Your task to perform on an android device: uninstall "Life360: Find Family & Friends" Image 0: 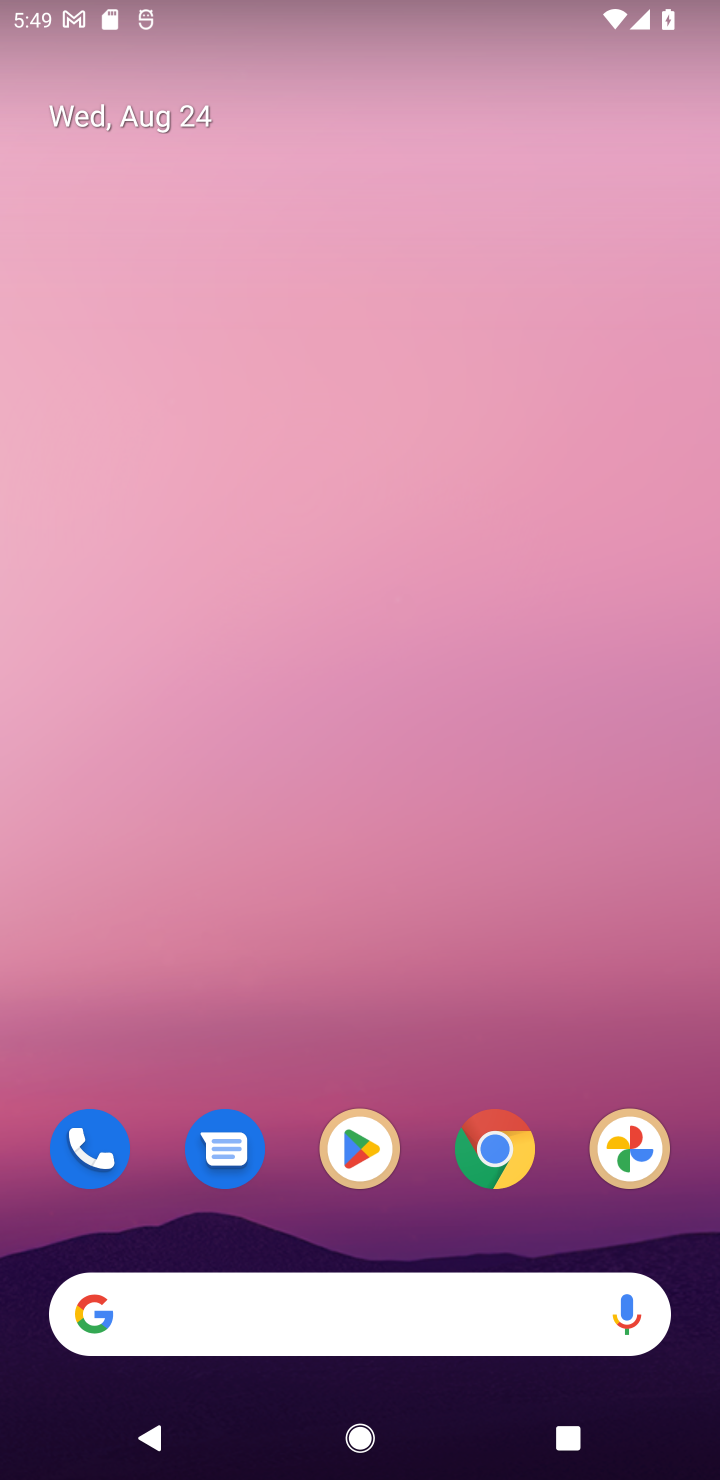
Step 0: click (374, 1148)
Your task to perform on an android device: uninstall "Life360: Find Family & Friends" Image 1: 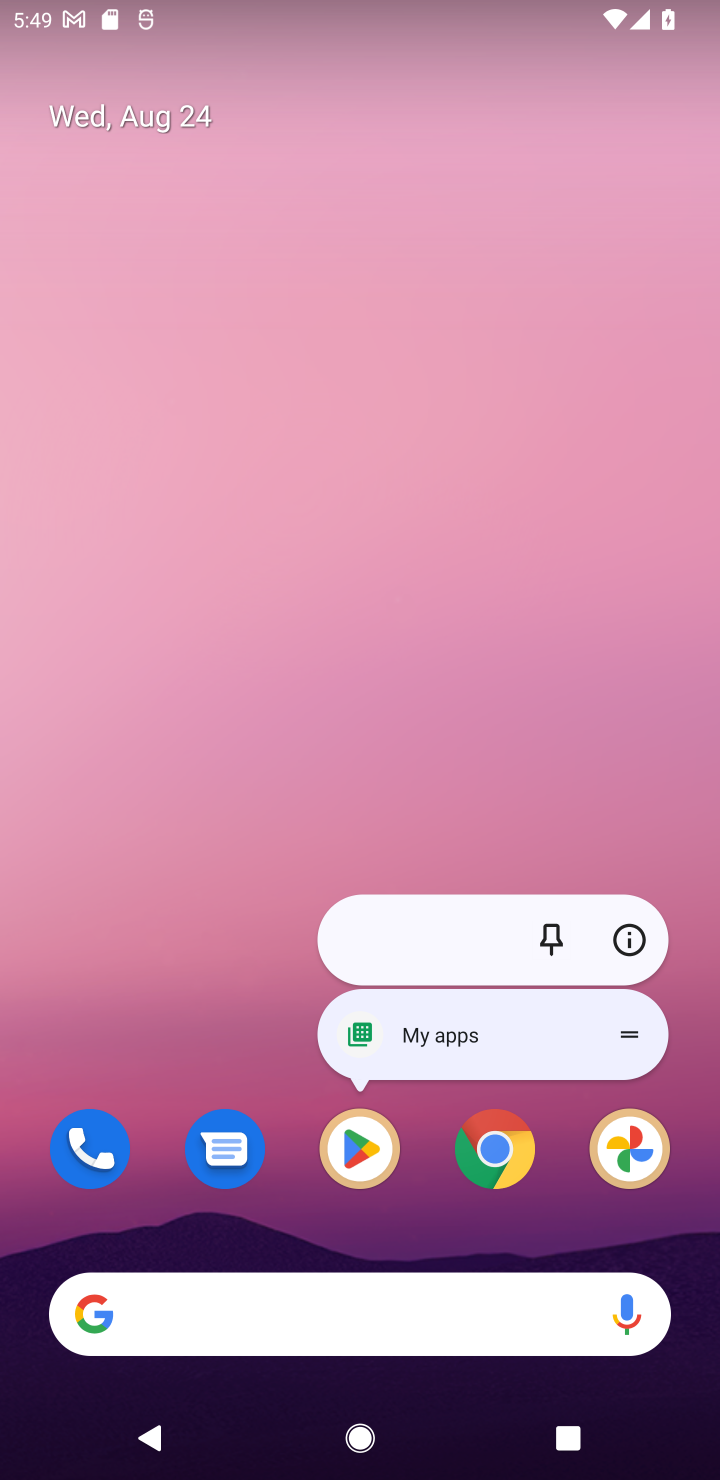
Step 1: click (374, 1156)
Your task to perform on an android device: uninstall "Life360: Find Family & Friends" Image 2: 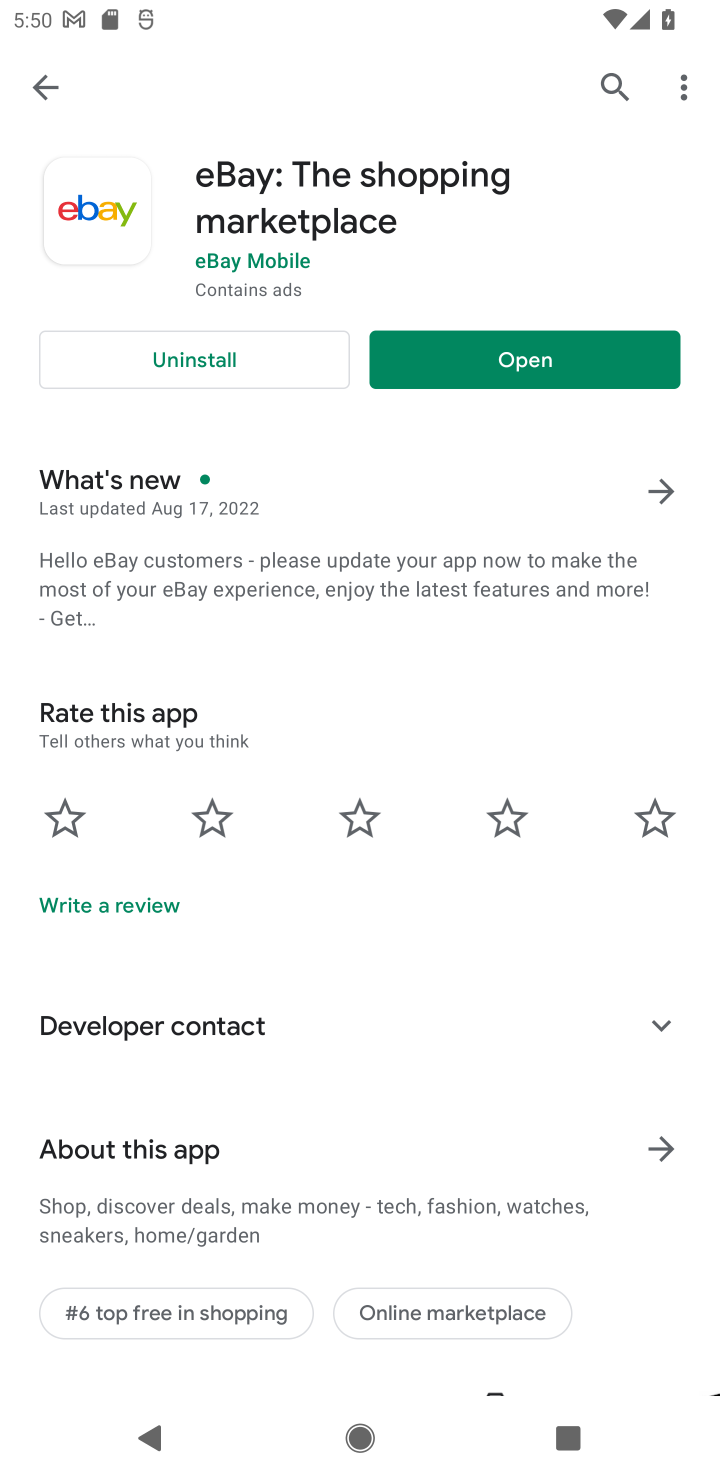
Step 2: click (606, 81)
Your task to perform on an android device: uninstall "Life360: Find Family & Friends" Image 3: 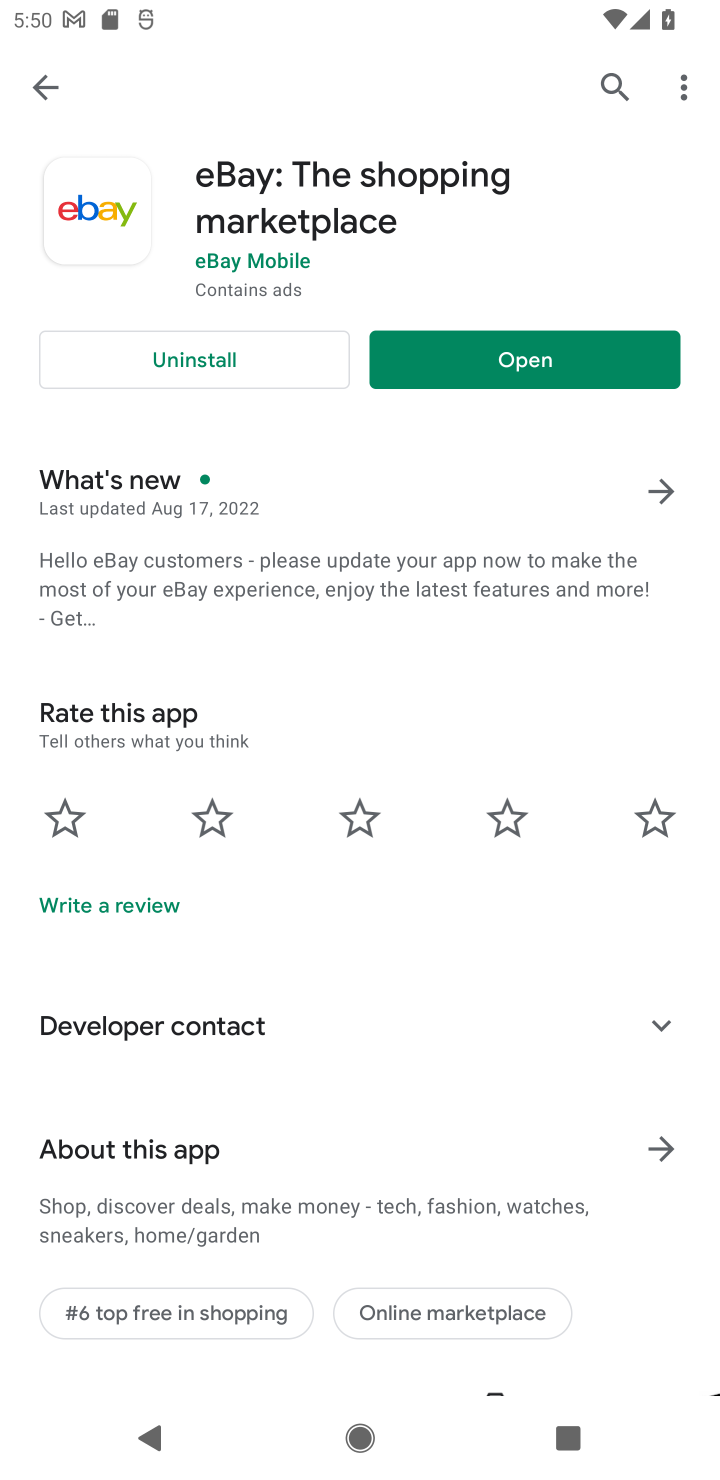
Step 3: click (573, 69)
Your task to perform on an android device: uninstall "Life360: Find Family & Friends" Image 4: 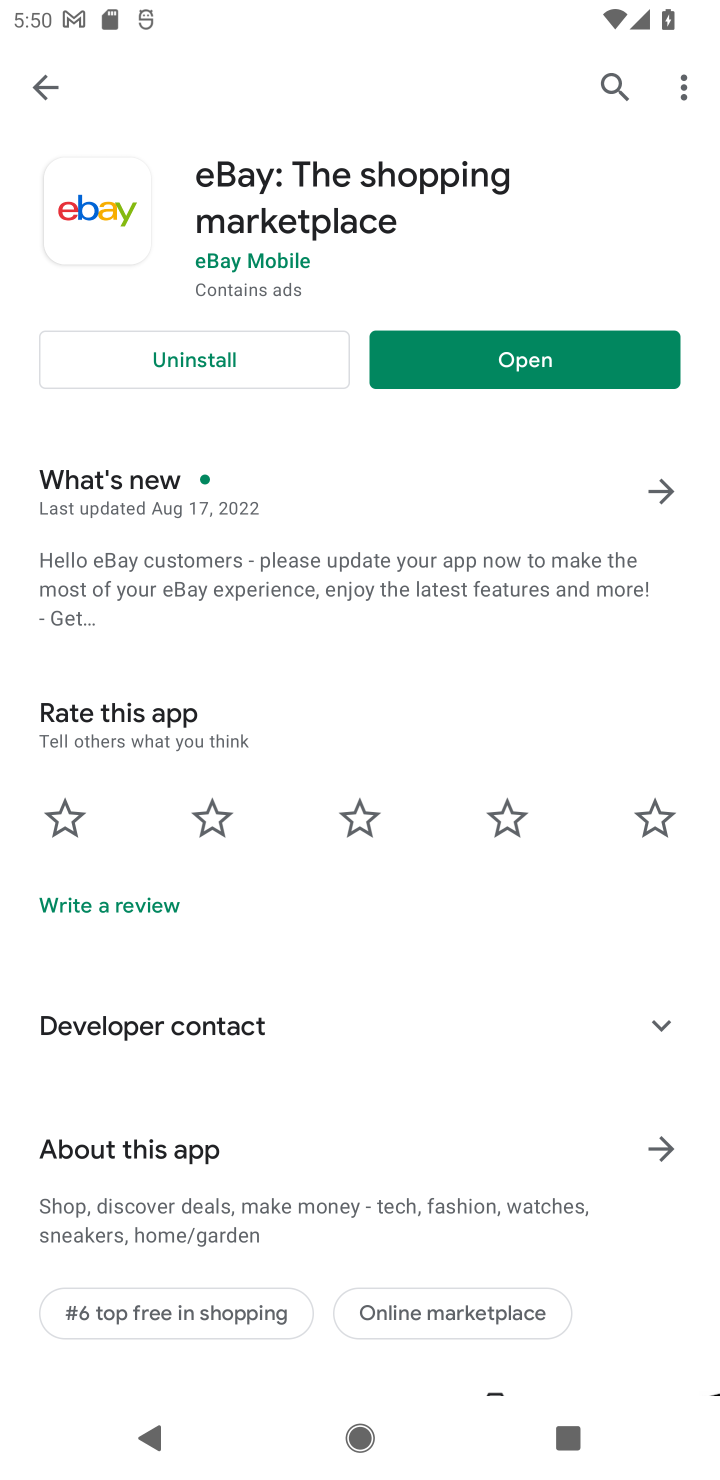
Step 4: click (590, 79)
Your task to perform on an android device: uninstall "Life360: Find Family & Friends" Image 5: 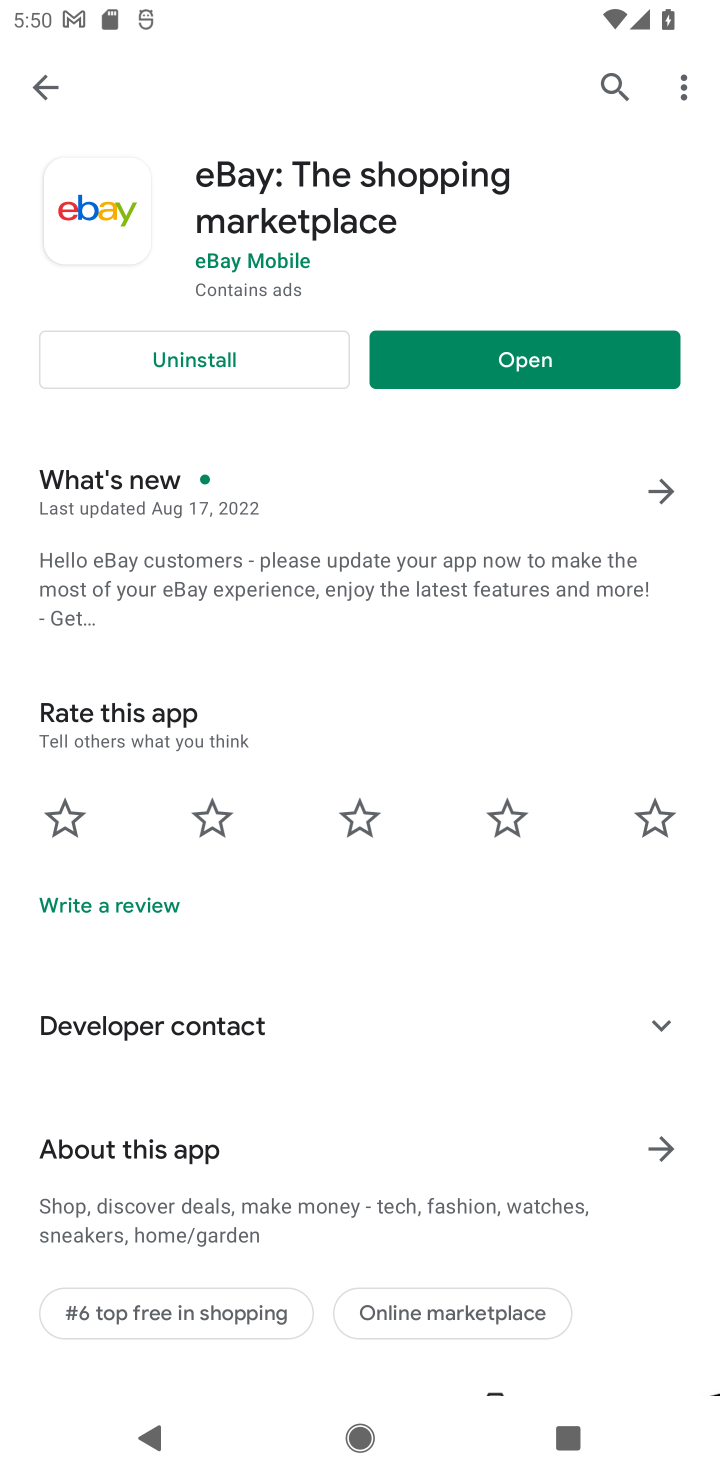
Step 5: click (598, 77)
Your task to perform on an android device: uninstall "Life360: Find Family & Friends" Image 6: 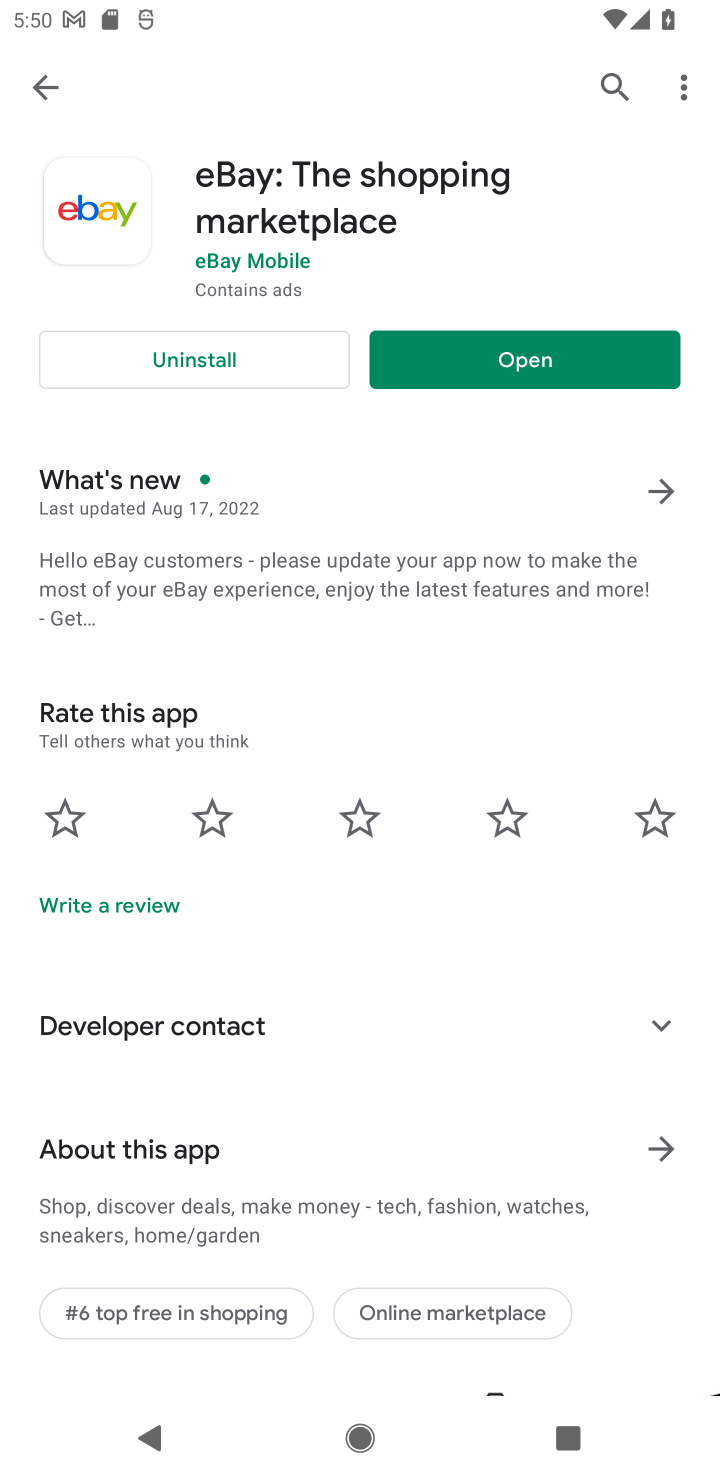
Step 6: click (617, 78)
Your task to perform on an android device: uninstall "Life360: Find Family & Friends" Image 7: 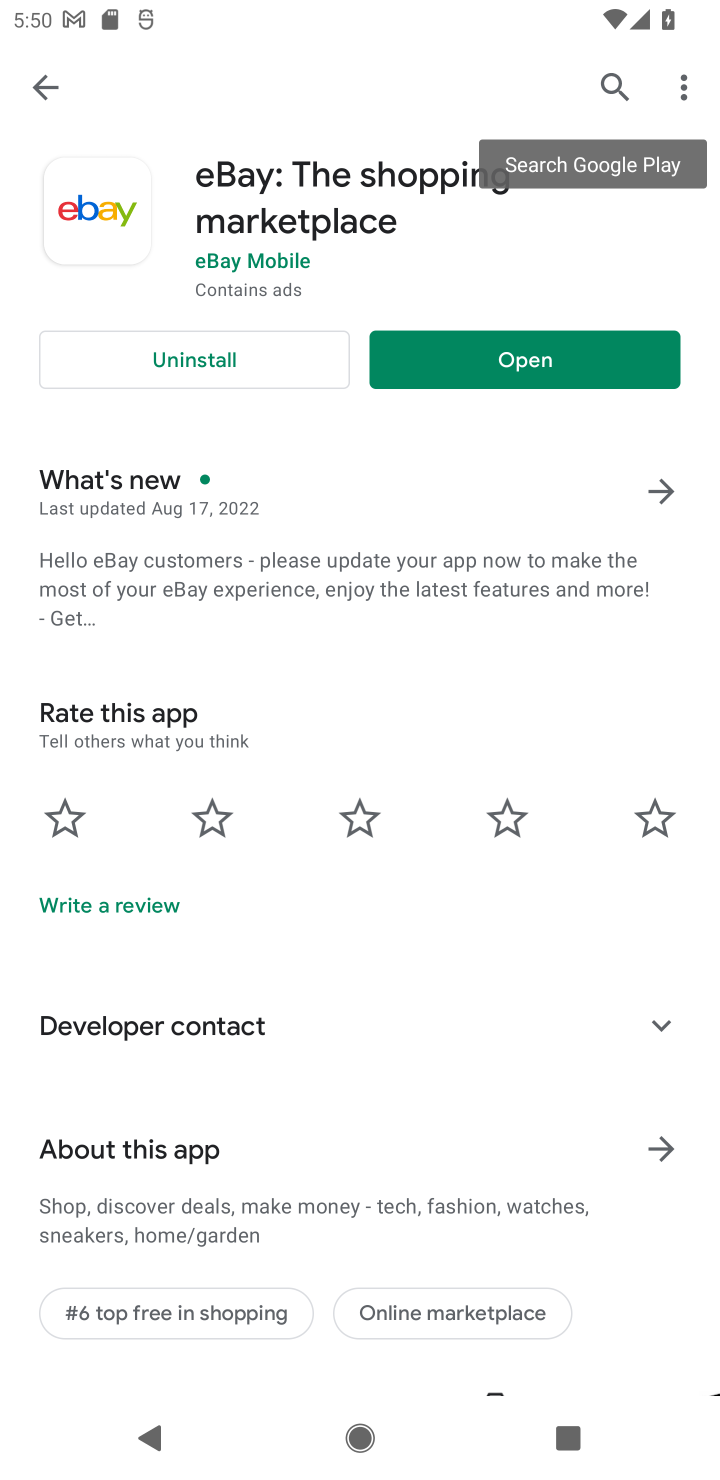
Step 7: click (612, 78)
Your task to perform on an android device: uninstall "Life360: Find Family & Friends" Image 8: 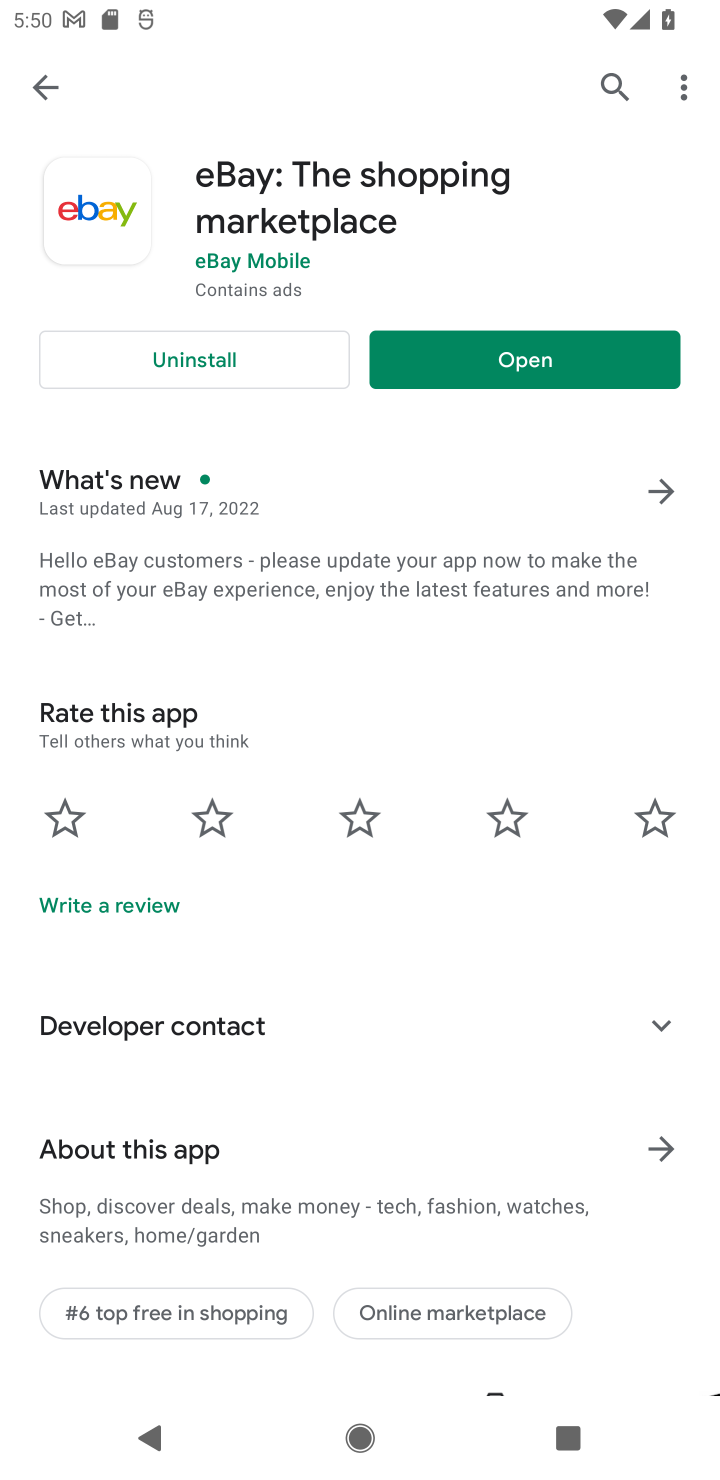
Step 8: click (561, 92)
Your task to perform on an android device: uninstall "Life360: Find Family & Friends" Image 9: 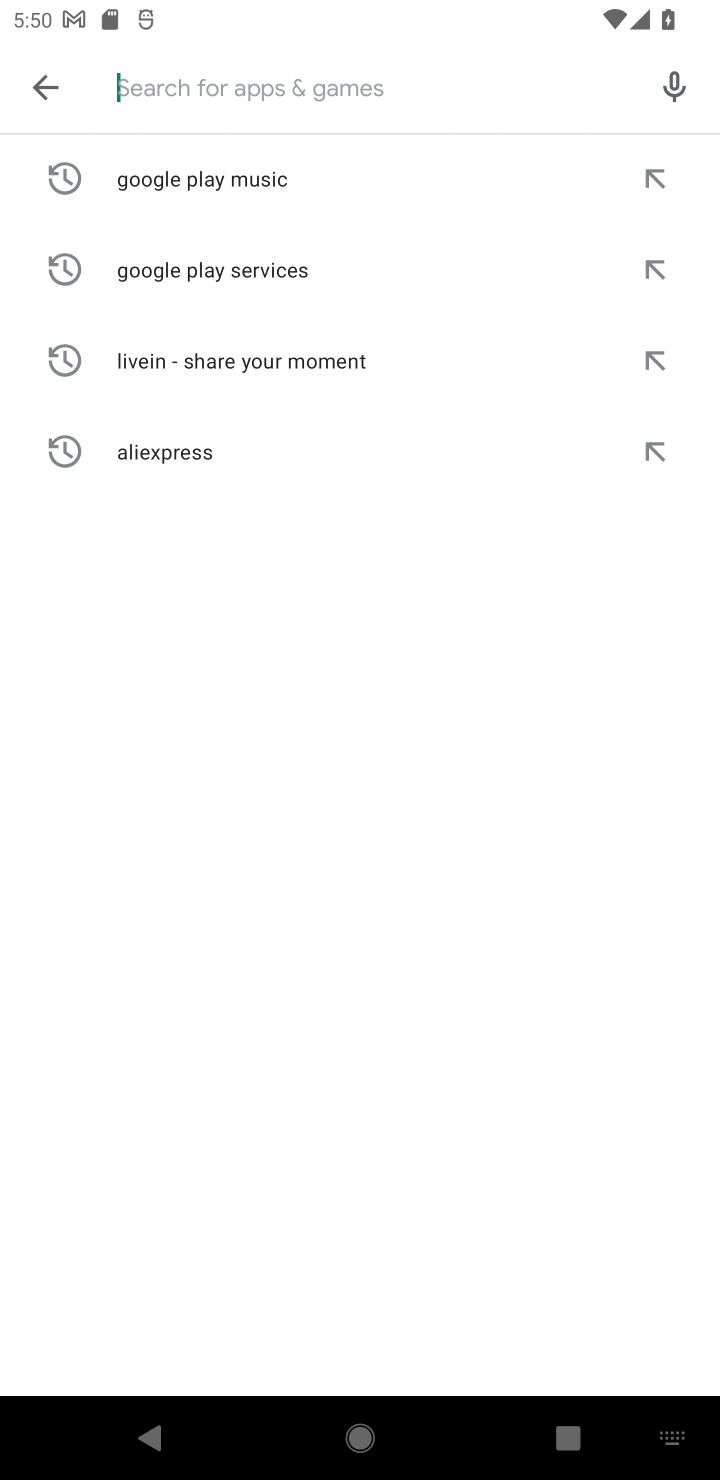
Step 9: type "Life360: Find Family & Friends"
Your task to perform on an android device: uninstall "Life360: Find Family & Friends" Image 10: 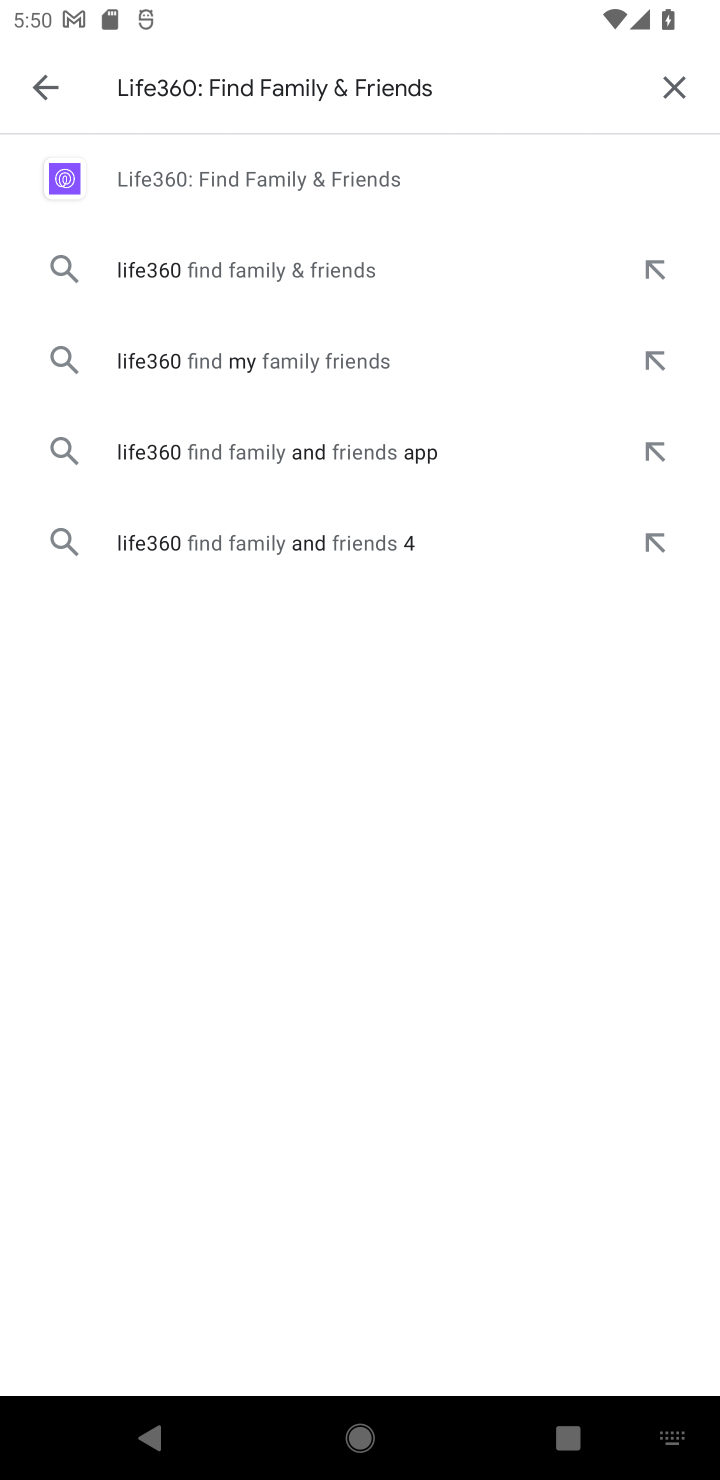
Step 10: click (187, 181)
Your task to perform on an android device: uninstall "Life360: Find Family & Friends" Image 11: 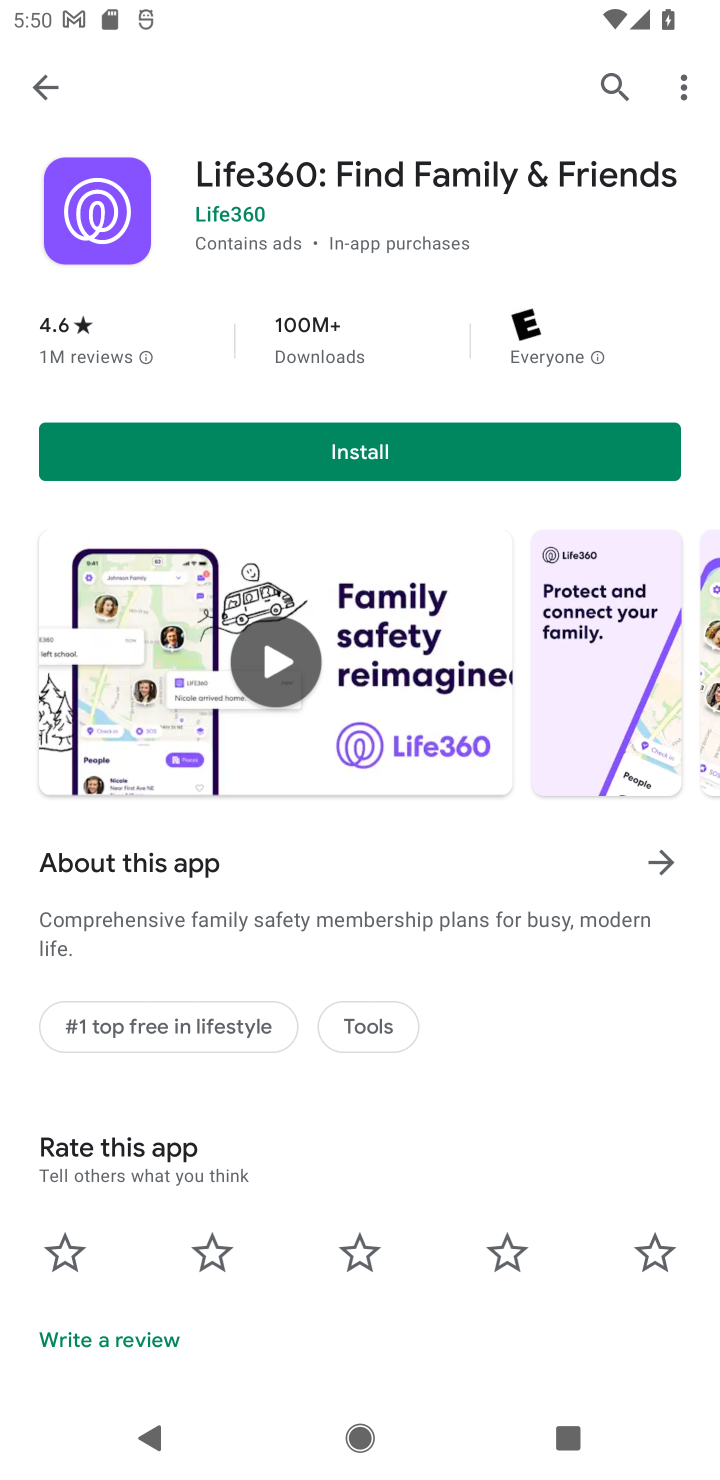
Step 11: task complete